Your task to perform on an android device: Open Google Chrome Image 0: 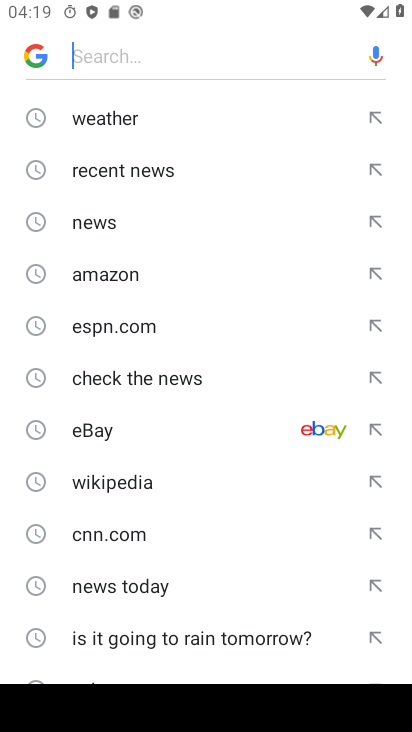
Step 0: press home button
Your task to perform on an android device: Open Google Chrome Image 1: 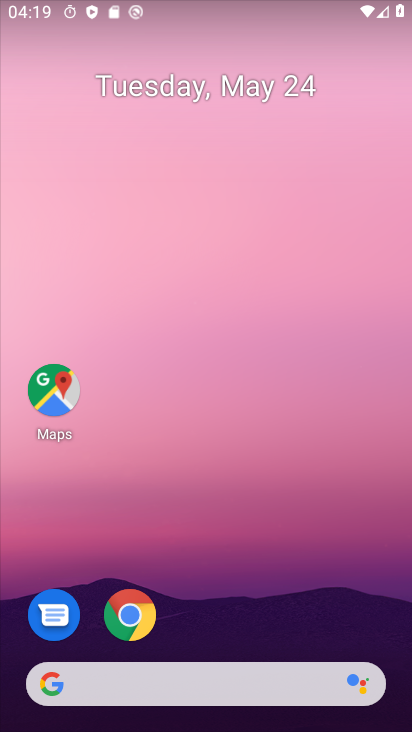
Step 1: click (138, 621)
Your task to perform on an android device: Open Google Chrome Image 2: 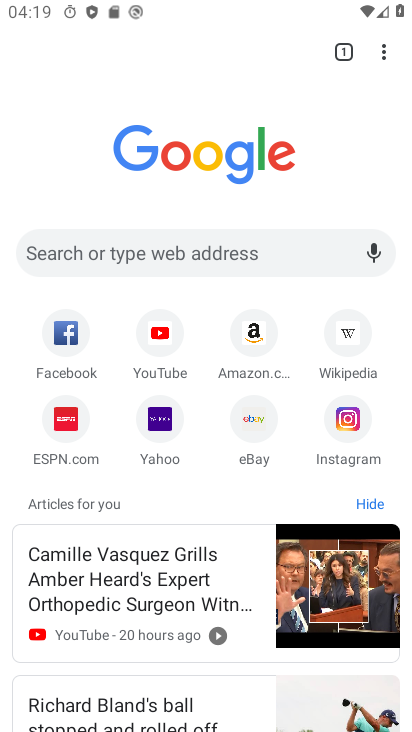
Step 2: task complete